Your task to perform on an android device: toggle sleep mode Image 0: 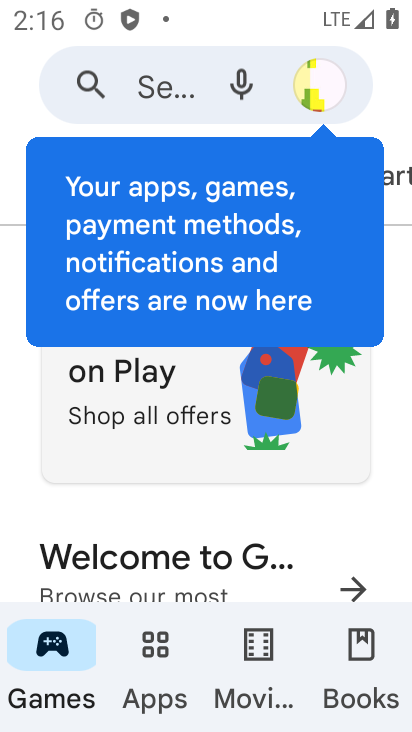
Step 0: press home button
Your task to perform on an android device: toggle sleep mode Image 1: 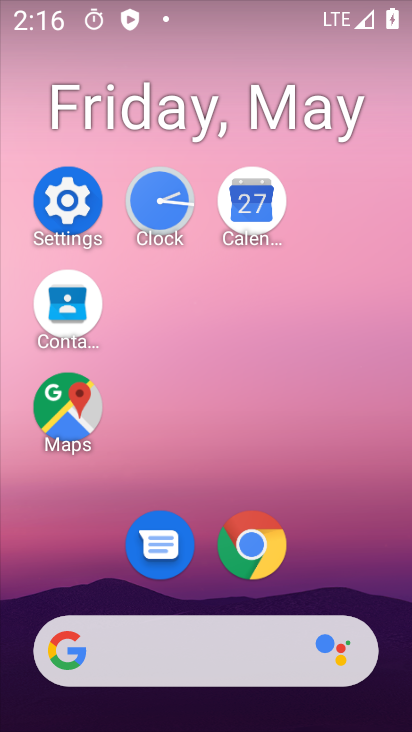
Step 1: click (52, 195)
Your task to perform on an android device: toggle sleep mode Image 2: 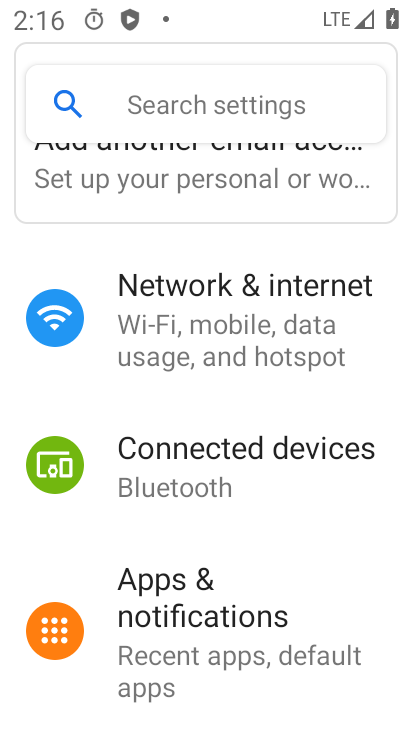
Step 2: drag from (317, 581) to (271, 237)
Your task to perform on an android device: toggle sleep mode Image 3: 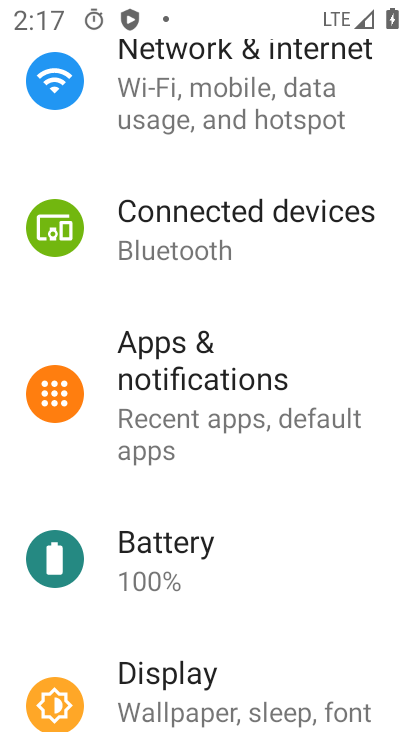
Step 3: click (207, 671)
Your task to perform on an android device: toggle sleep mode Image 4: 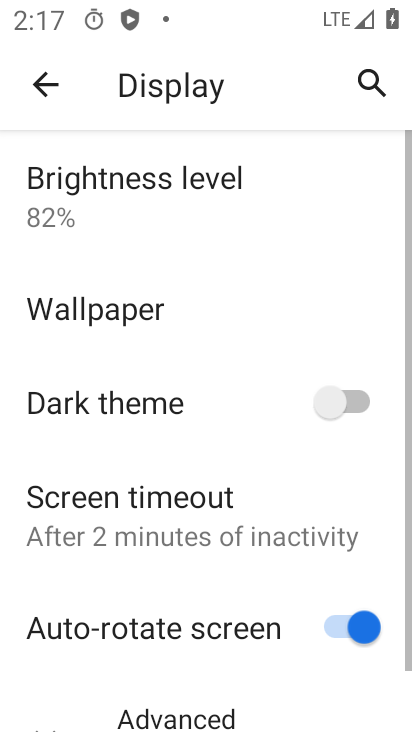
Step 4: click (218, 540)
Your task to perform on an android device: toggle sleep mode Image 5: 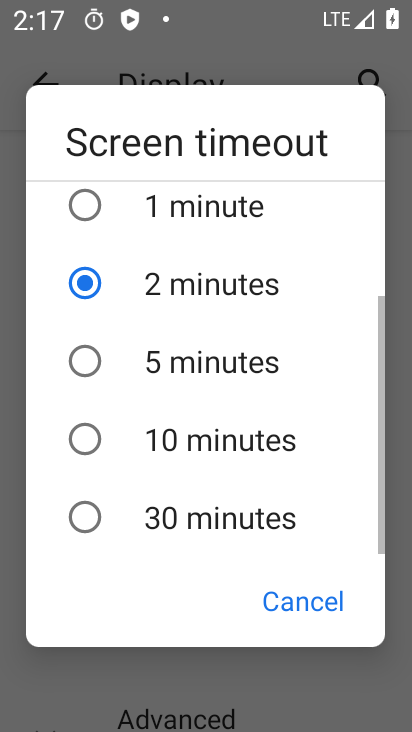
Step 5: click (120, 367)
Your task to perform on an android device: toggle sleep mode Image 6: 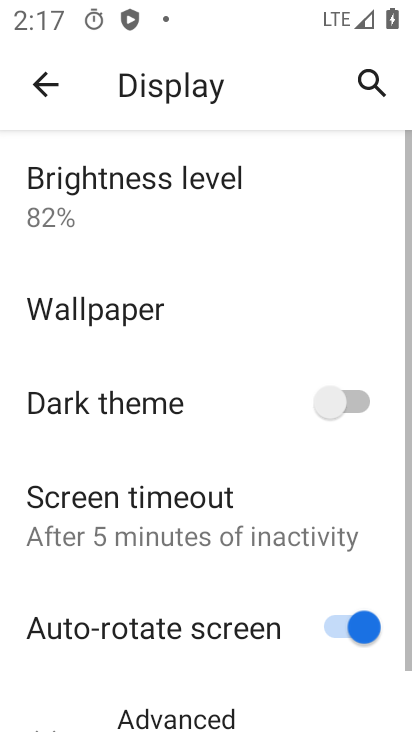
Step 6: task complete